Your task to perform on an android device: Show me productivity apps on the Play Store Image 0: 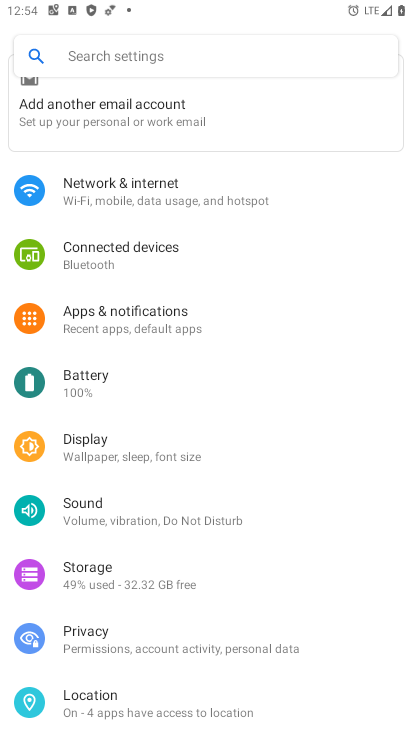
Step 0: press home button
Your task to perform on an android device: Show me productivity apps on the Play Store Image 1: 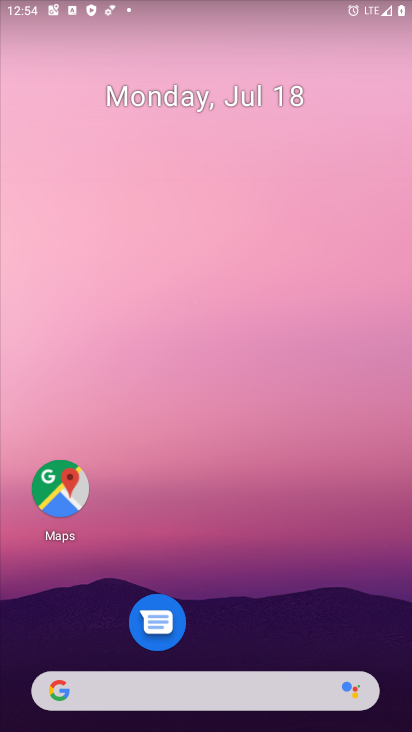
Step 1: drag from (200, 727) to (189, 135)
Your task to perform on an android device: Show me productivity apps on the Play Store Image 2: 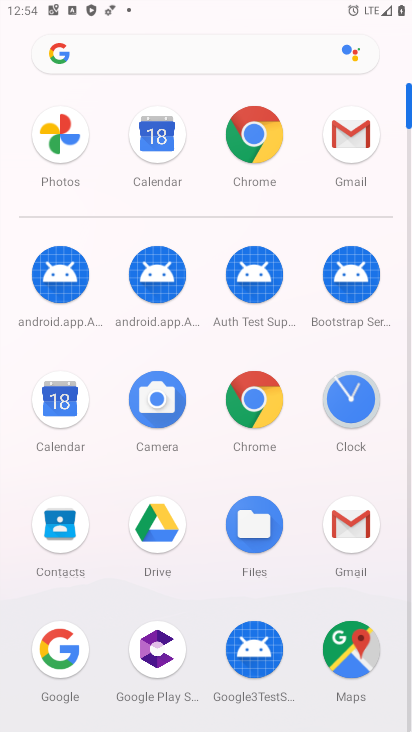
Step 2: drag from (132, 567) to (125, 73)
Your task to perform on an android device: Show me productivity apps on the Play Store Image 3: 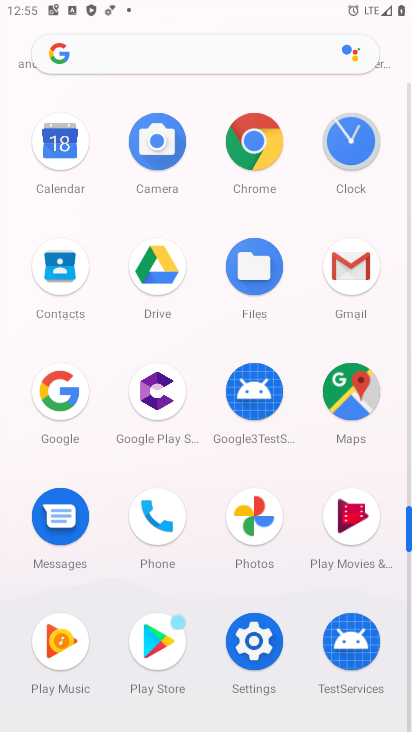
Step 3: click (168, 646)
Your task to perform on an android device: Show me productivity apps on the Play Store Image 4: 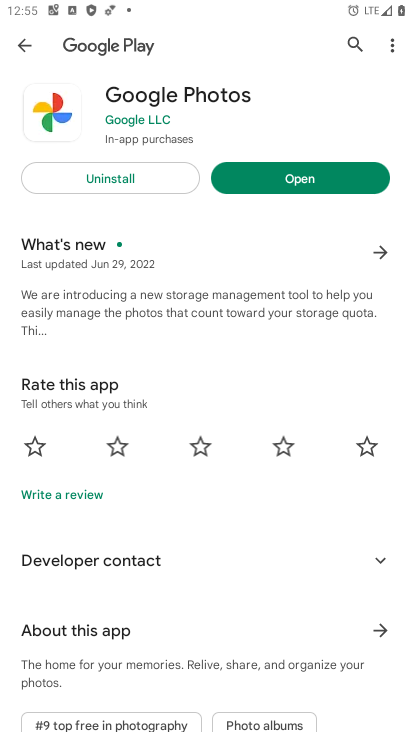
Step 4: click (21, 46)
Your task to perform on an android device: Show me productivity apps on the Play Store Image 5: 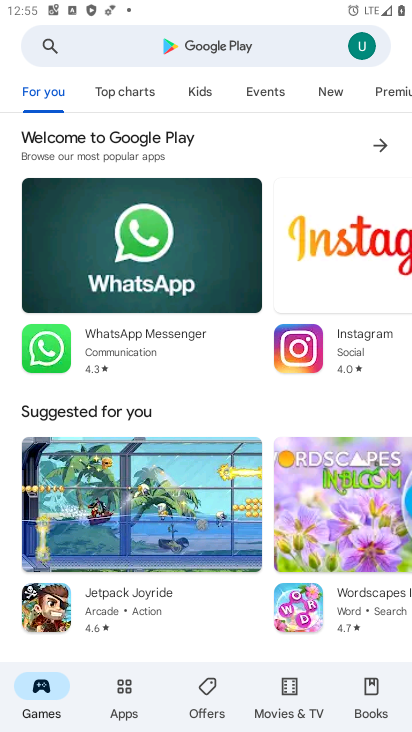
Step 5: click (133, 700)
Your task to perform on an android device: Show me productivity apps on the Play Store Image 6: 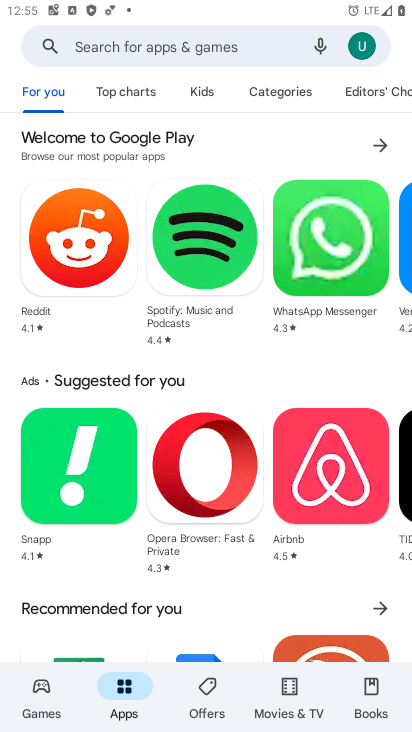
Step 6: click (274, 88)
Your task to perform on an android device: Show me productivity apps on the Play Store Image 7: 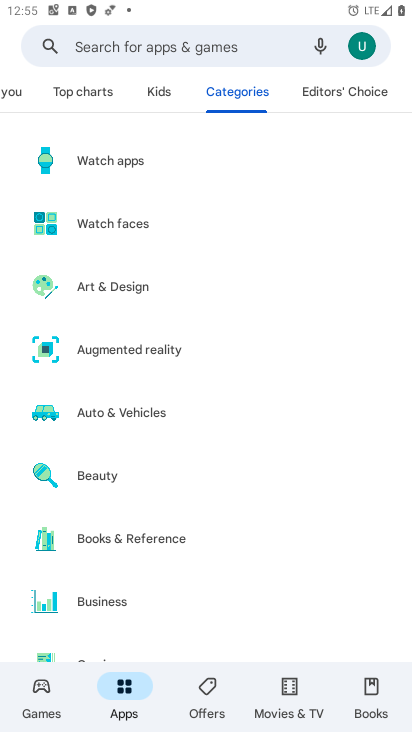
Step 7: drag from (231, 573) to (215, 6)
Your task to perform on an android device: Show me productivity apps on the Play Store Image 8: 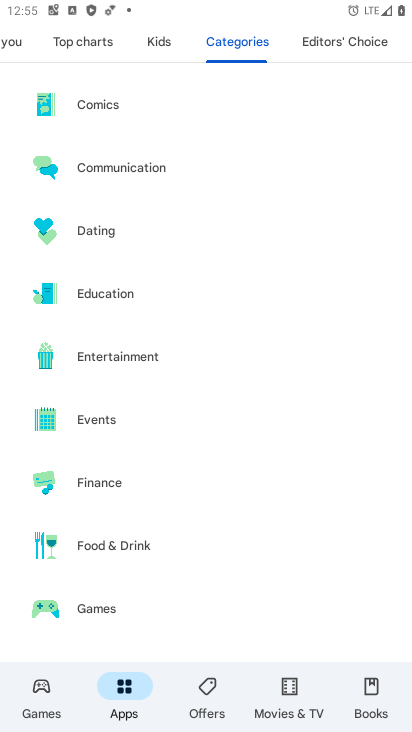
Step 8: drag from (153, 599) to (156, 114)
Your task to perform on an android device: Show me productivity apps on the Play Store Image 9: 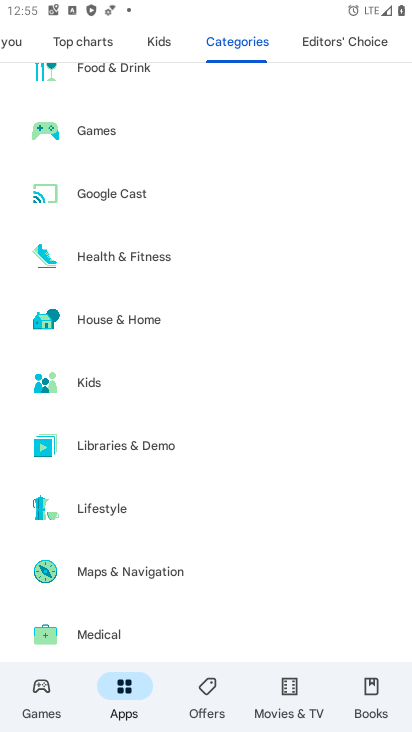
Step 9: drag from (144, 468) to (211, 31)
Your task to perform on an android device: Show me productivity apps on the Play Store Image 10: 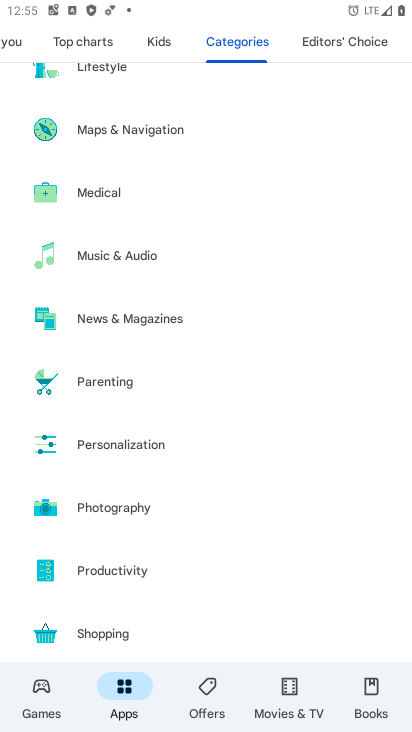
Step 10: click (112, 571)
Your task to perform on an android device: Show me productivity apps on the Play Store Image 11: 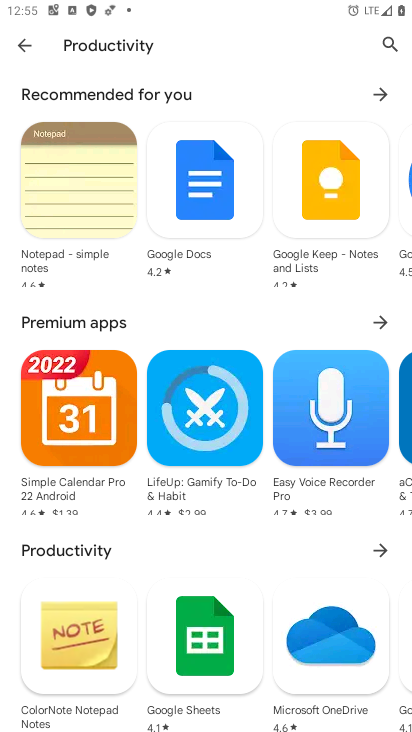
Step 11: task complete